Your task to perform on an android device: toggle wifi Image 0: 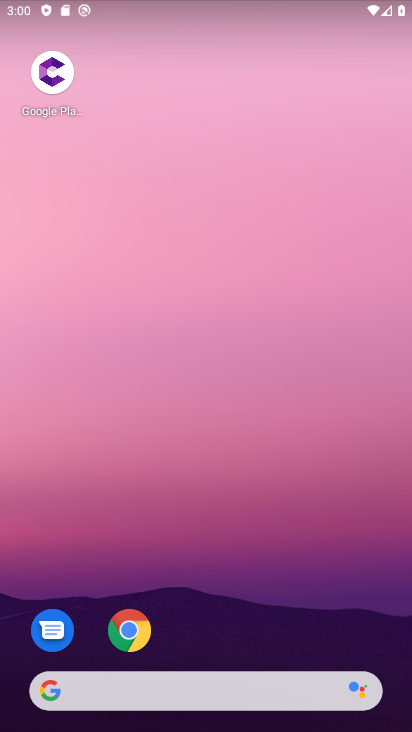
Step 0: drag from (217, 719) to (213, 19)
Your task to perform on an android device: toggle wifi Image 1: 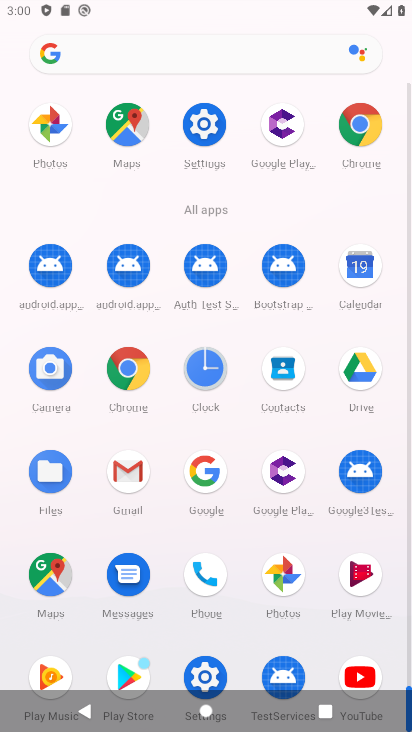
Step 1: click (199, 132)
Your task to perform on an android device: toggle wifi Image 2: 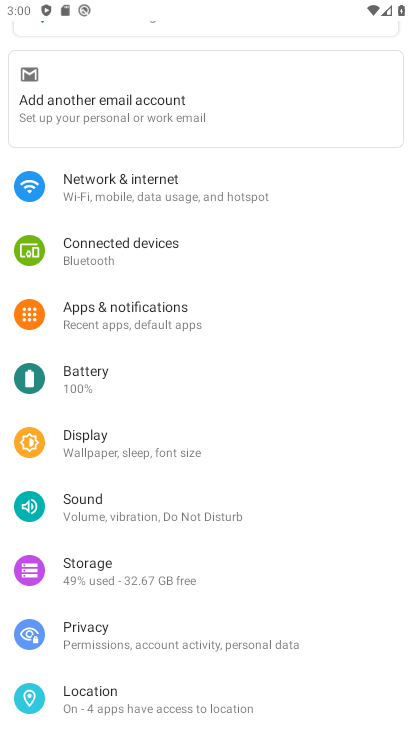
Step 2: click (106, 188)
Your task to perform on an android device: toggle wifi Image 3: 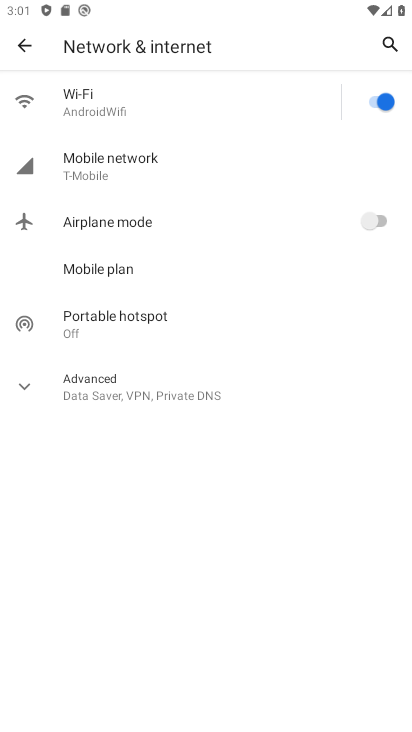
Step 3: click (377, 100)
Your task to perform on an android device: toggle wifi Image 4: 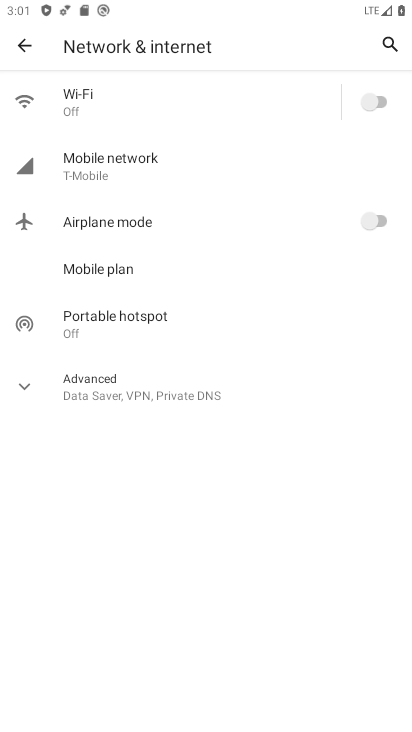
Step 4: task complete